Your task to perform on an android device: find photos in the google photos app Image 0: 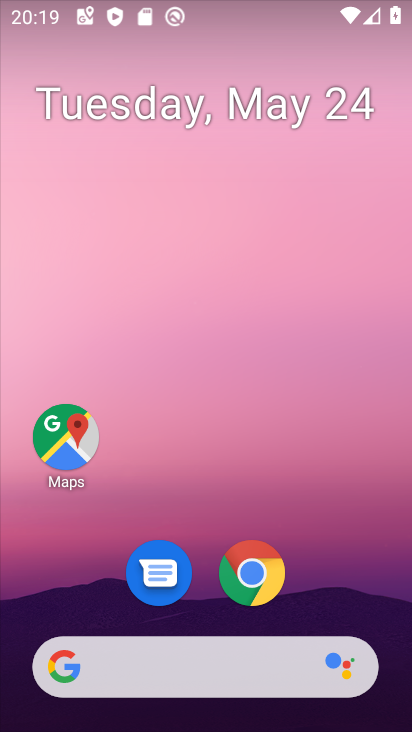
Step 0: drag from (319, 581) to (314, 37)
Your task to perform on an android device: find photos in the google photos app Image 1: 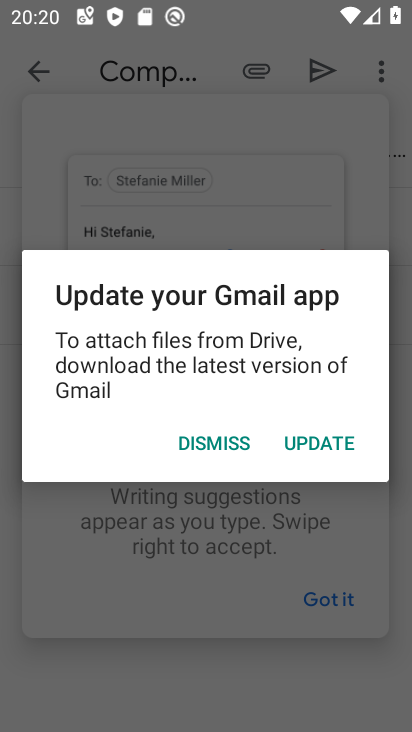
Step 1: press home button
Your task to perform on an android device: find photos in the google photos app Image 2: 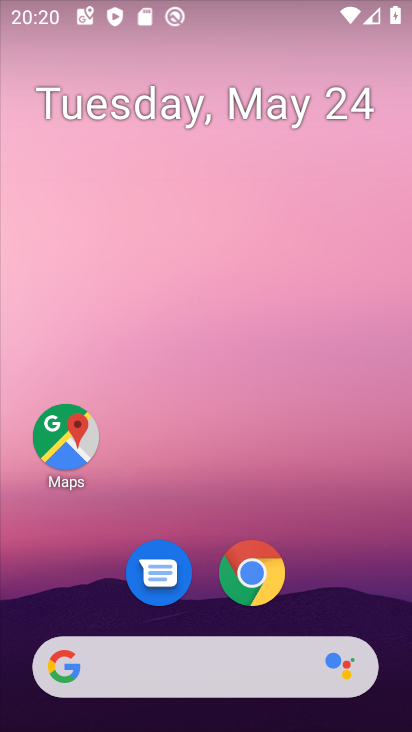
Step 2: drag from (310, 590) to (324, 30)
Your task to perform on an android device: find photos in the google photos app Image 3: 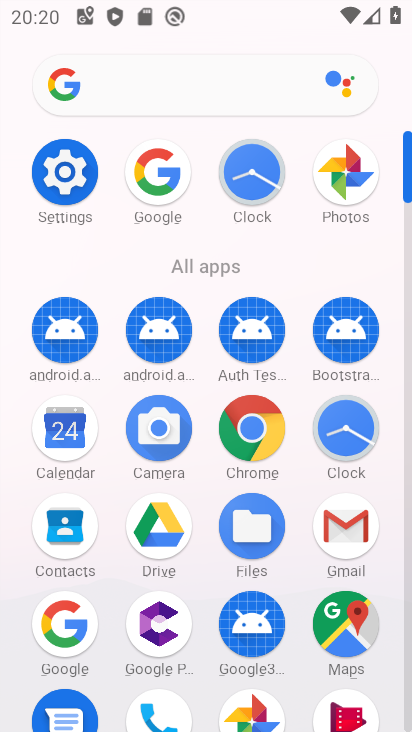
Step 3: click (354, 179)
Your task to perform on an android device: find photos in the google photos app Image 4: 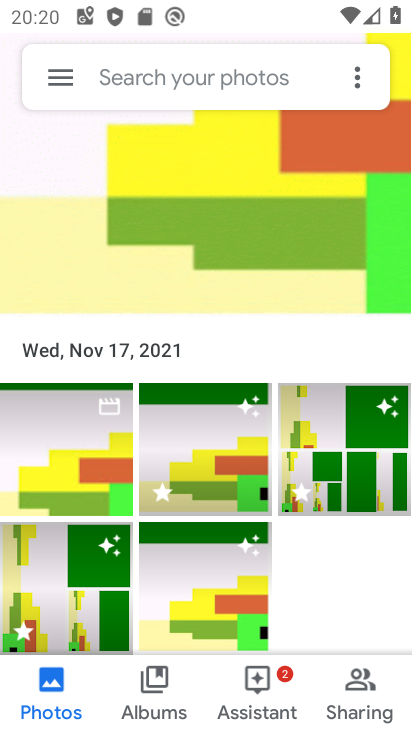
Step 4: task complete